Your task to perform on an android device: turn on translation in the chrome app Image 0: 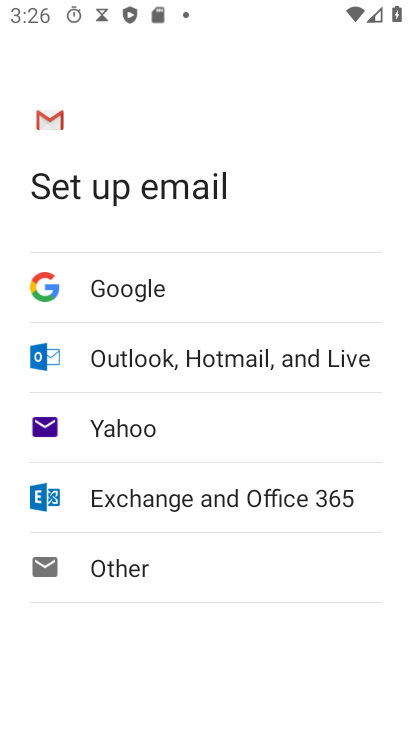
Step 0: press back button
Your task to perform on an android device: turn on translation in the chrome app Image 1: 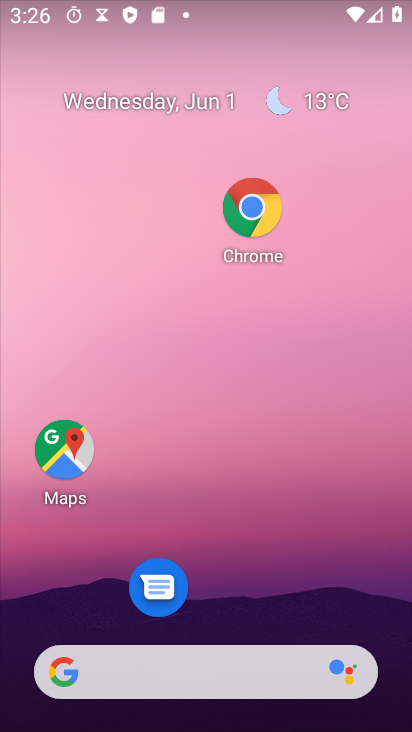
Step 1: drag from (245, 546) to (236, 211)
Your task to perform on an android device: turn on translation in the chrome app Image 2: 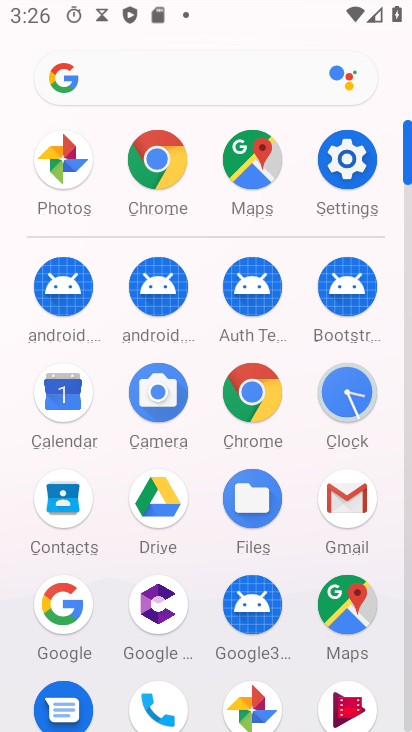
Step 2: click (254, 388)
Your task to perform on an android device: turn on translation in the chrome app Image 3: 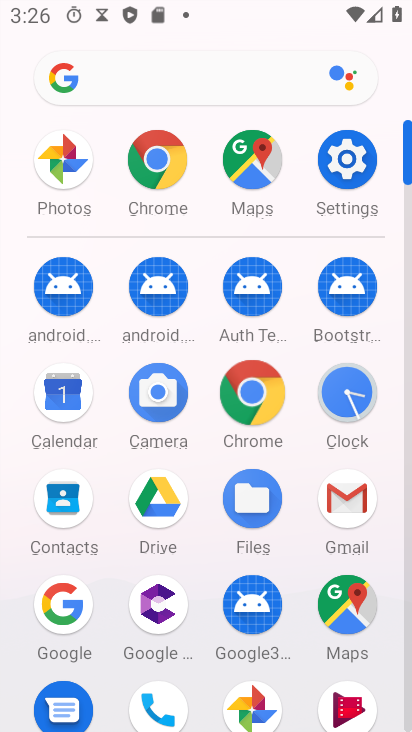
Step 3: click (254, 388)
Your task to perform on an android device: turn on translation in the chrome app Image 4: 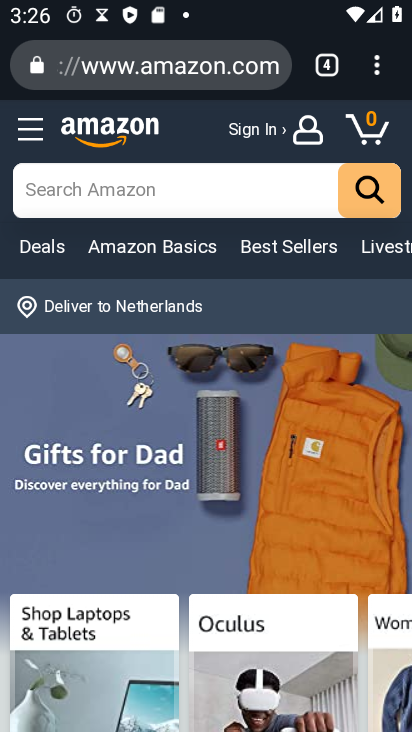
Step 4: drag from (373, 71) to (158, 629)
Your task to perform on an android device: turn on translation in the chrome app Image 5: 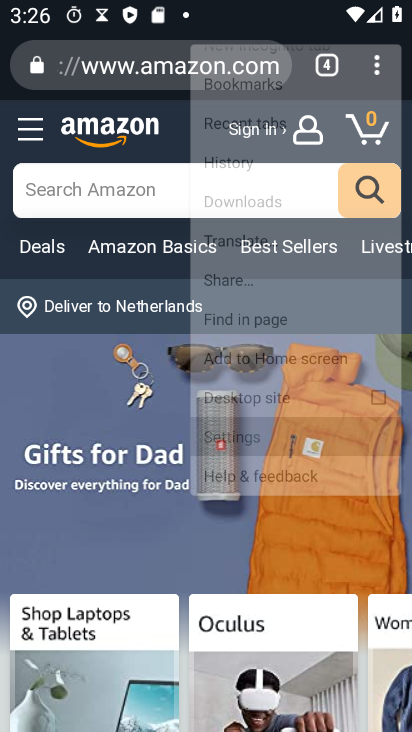
Step 5: click (163, 626)
Your task to perform on an android device: turn on translation in the chrome app Image 6: 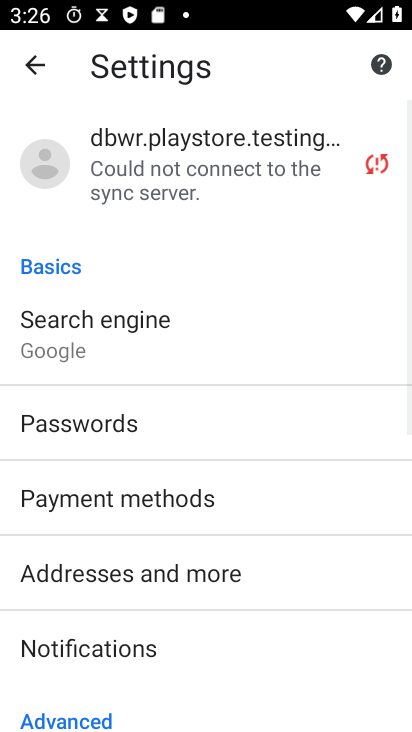
Step 6: drag from (187, 495) to (148, 84)
Your task to perform on an android device: turn on translation in the chrome app Image 7: 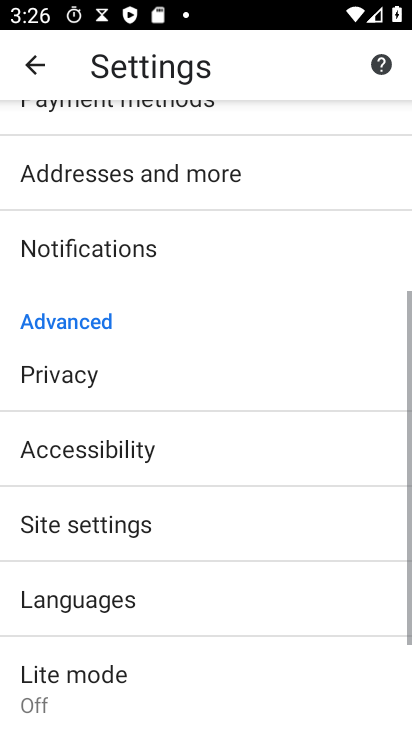
Step 7: drag from (118, 423) to (112, 120)
Your task to perform on an android device: turn on translation in the chrome app Image 8: 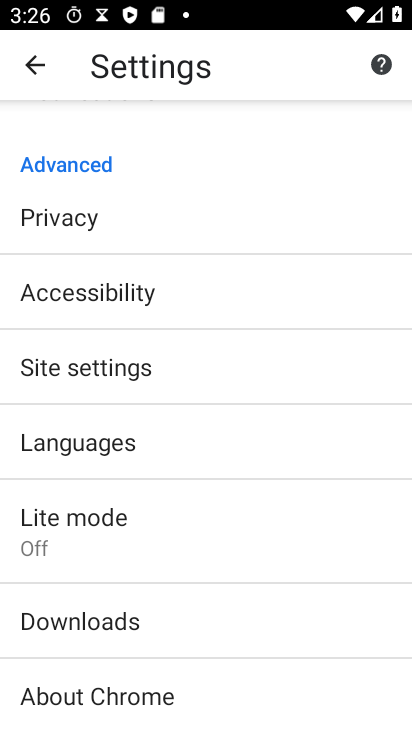
Step 8: click (72, 447)
Your task to perform on an android device: turn on translation in the chrome app Image 9: 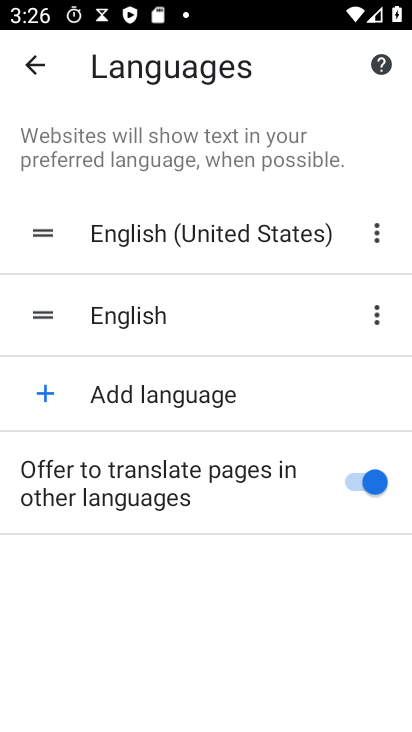
Step 9: task complete